Your task to perform on an android device: open the mobile data screen to see how much data has been used Image 0: 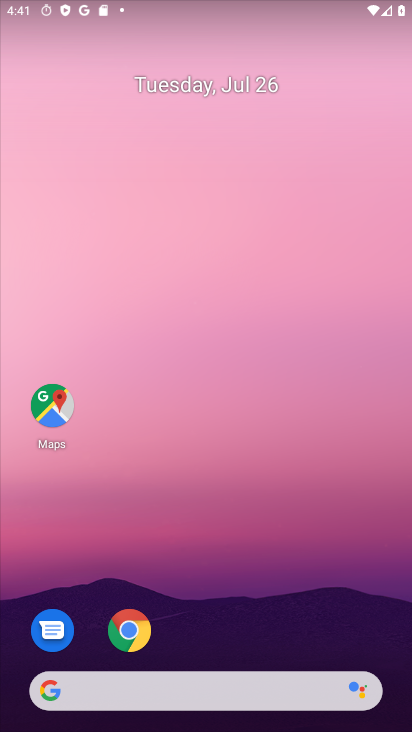
Step 0: drag from (300, 558) to (324, 37)
Your task to perform on an android device: open the mobile data screen to see how much data has been used Image 1: 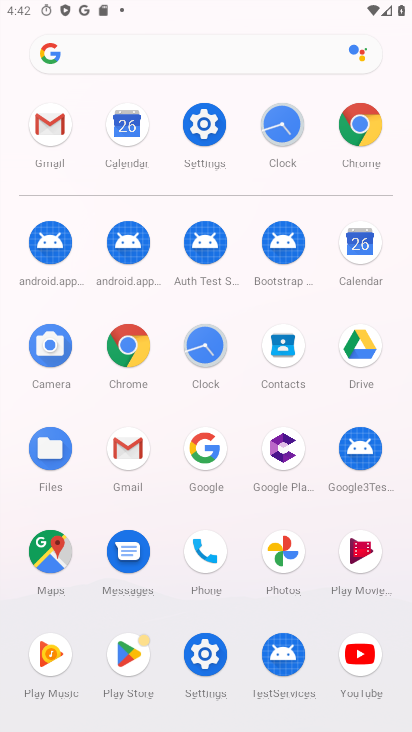
Step 1: click (211, 131)
Your task to perform on an android device: open the mobile data screen to see how much data has been used Image 2: 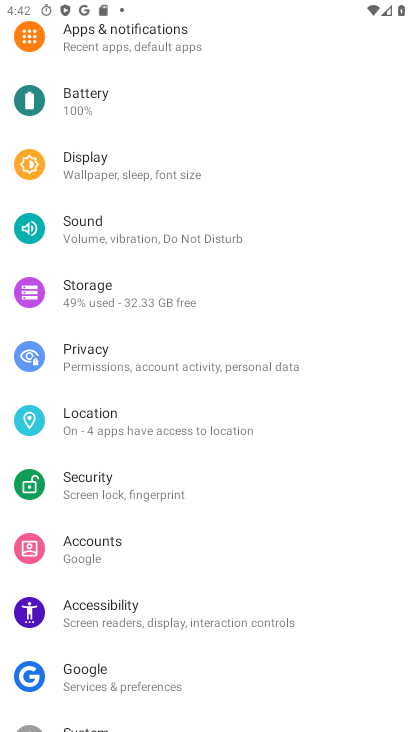
Step 2: drag from (203, 271) to (234, 644)
Your task to perform on an android device: open the mobile data screen to see how much data has been used Image 3: 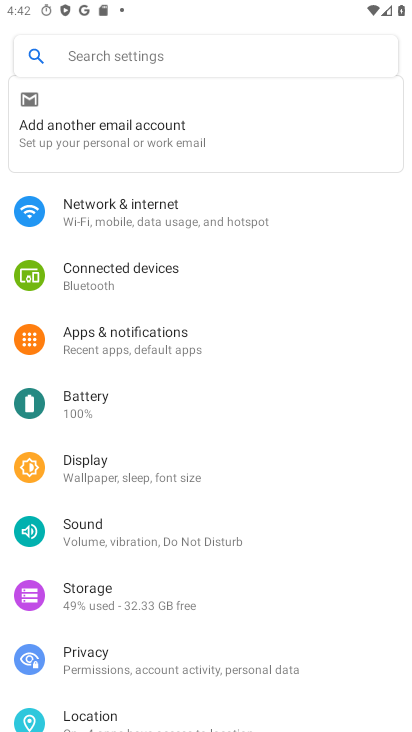
Step 3: click (97, 202)
Your task to perform on an android device: open the mobile data screen to see how much data has been used Image 4: 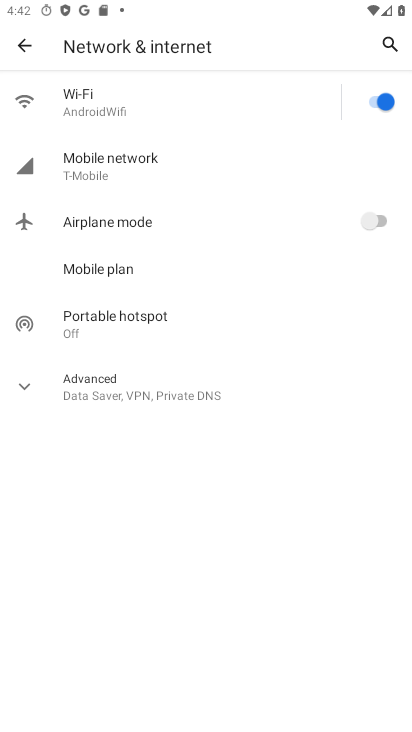
Step 4: click (105, 167)
Your task to perform on an android device: open the mobile data screen to see how much data has been used Image 5: 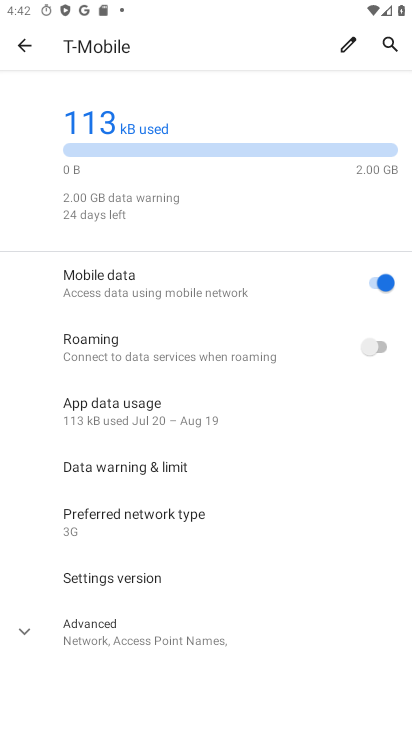
Step 5: task complete